Your task to perform on an android device: stop showing notifications on the lock screen Image 0: 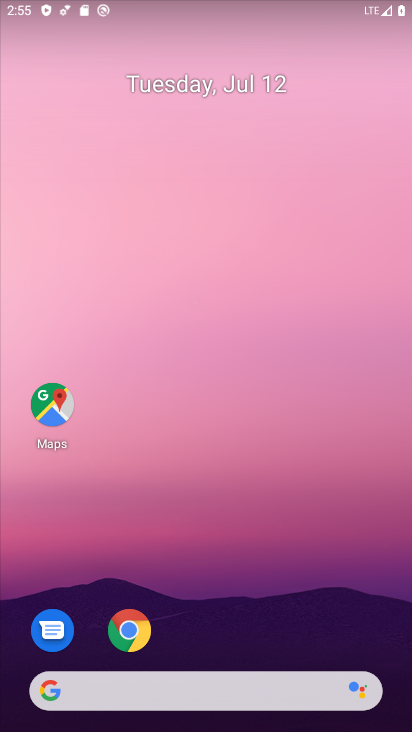
Step 0: drag from (235, 634) to (203, 28)
Your task to perform on an android device: stop showing notifications on the lock screen Image 1: 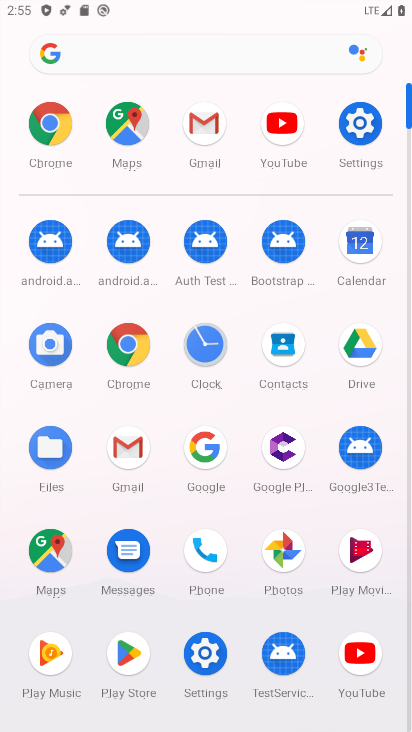
Step 1: click (365, 127)
Your task to perform on an android device: stop showing notifications on the lock screen Image 2: 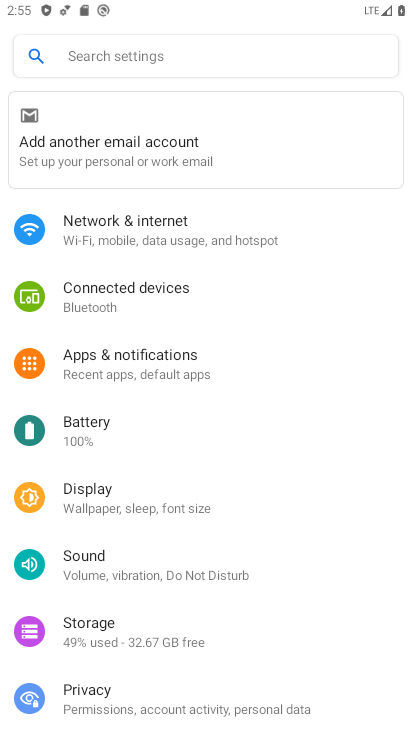
Step 2: click (134, 361)
Your task to perform on an android device: stop showing notifications on the lock screen Image 3: 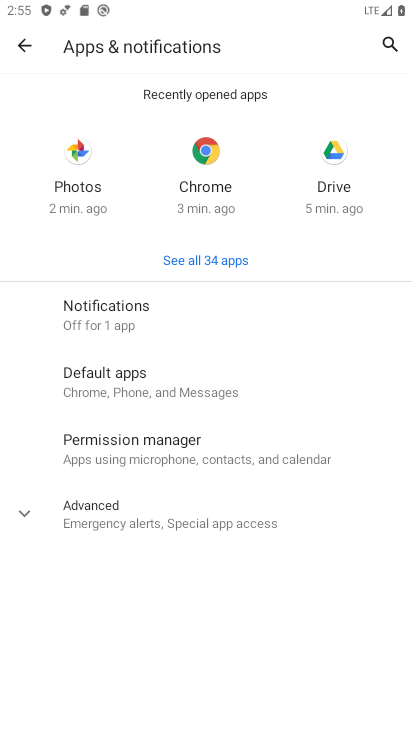
Step 3: click (164, 318)
Your task to perform on an android device: stop showing notifications on the lock screen Image 4: 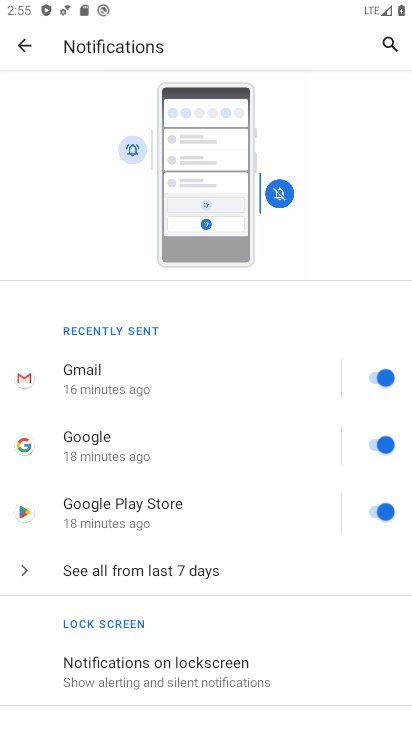
Step 4: drag from (262, 660) to (299, 325)
Your task to perform on an android device: stop showing notifications on the lock screen Image 5: 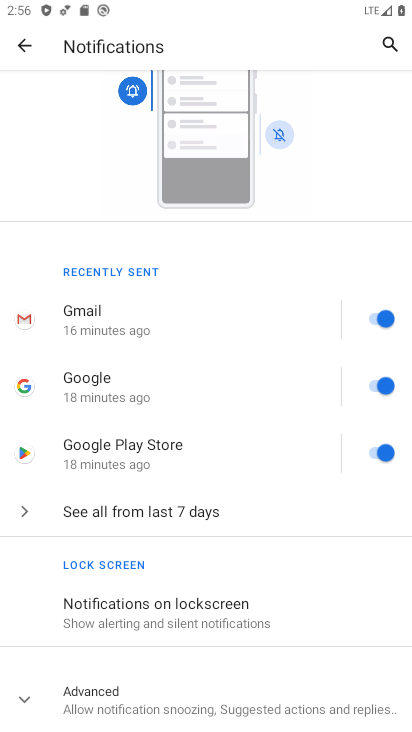
Step 5: click (185, 604)
Your task to perform on an android device: stop showing notifications on the lock screen Image 6: 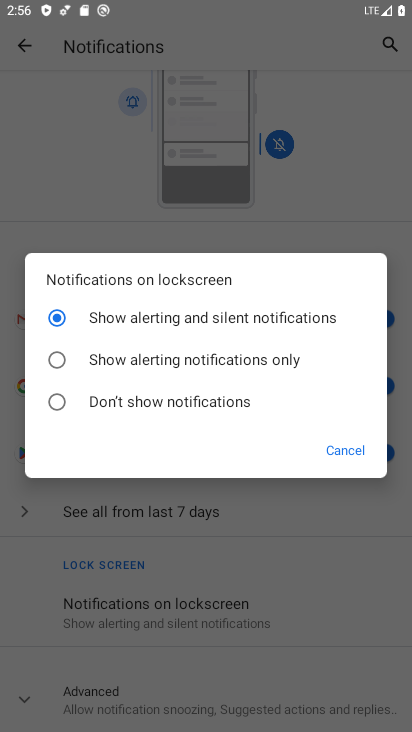
Step 6: click (56, 406)
Your task to perform on an android device: stop showing notifications on the lock screen Image 7: 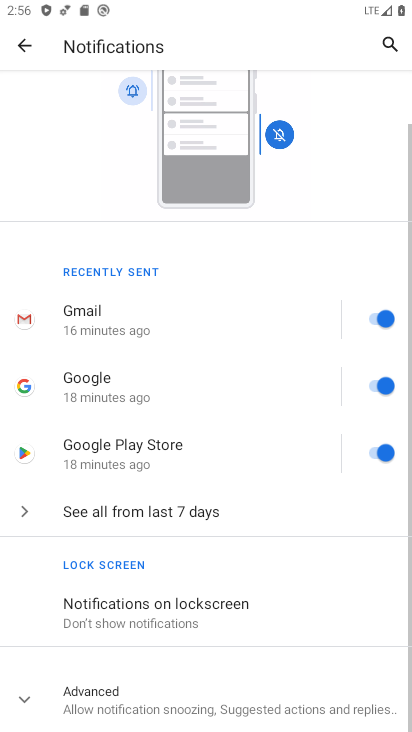
Step 7: task complete